Your task to perform on an android device: allow notifications from all sites in the chrome app Image 0: 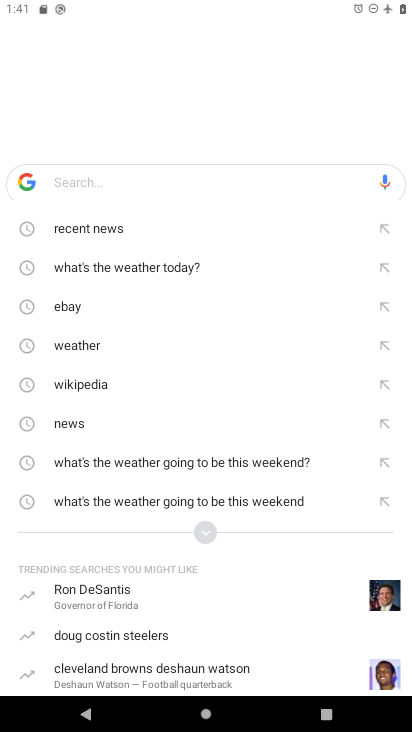
Step 0: press home button
Your task to perform on an android device: allow notifications from all sites in the chrome app Image 1: 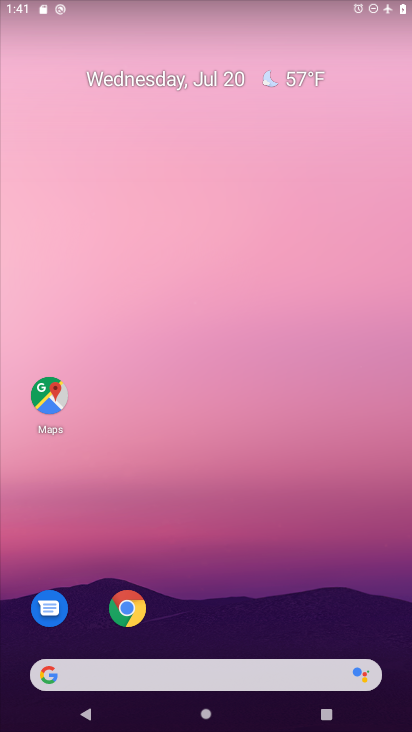
Step 1: drag from (229, 723) to (294, 132)
Your task to perform on an android device: allow notifications from all sites in the chrome app Image 2: 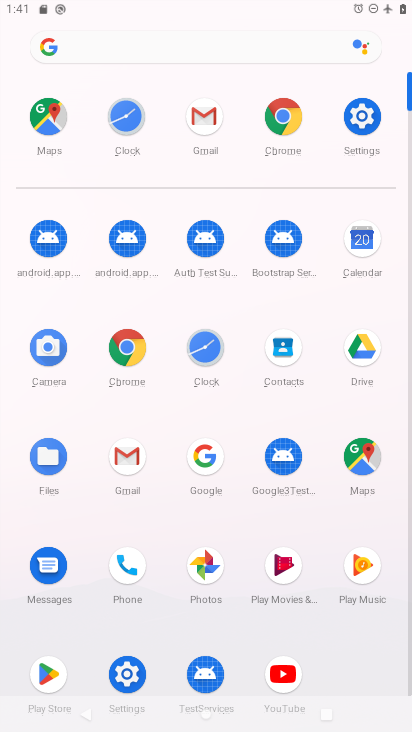
Step 2: click (295, 97)
Your task to perform on an android device: allow notifications from all sites in the chrome app Image 3: 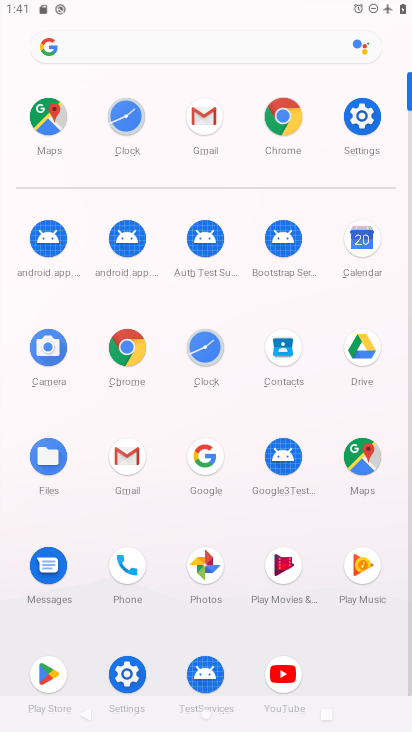
Step 3: click (295, 97)
Your task to perform on an android device: allow notifications from all sites in the chrome app Image 4: 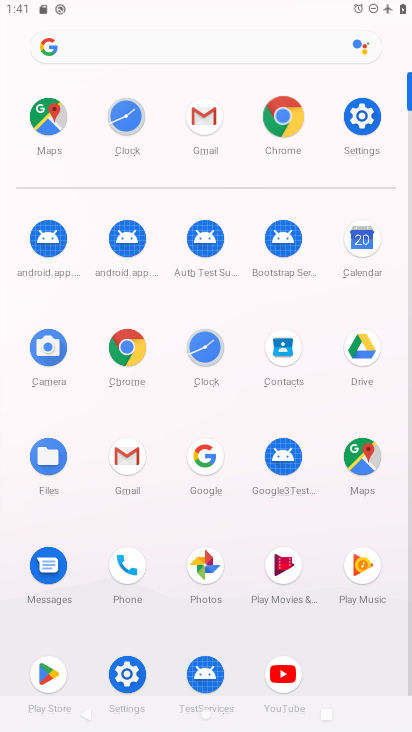
Step 4: click (295, 97)
Your task to perform on an android device: allow notifications from all sites in the chrome app Image 5: 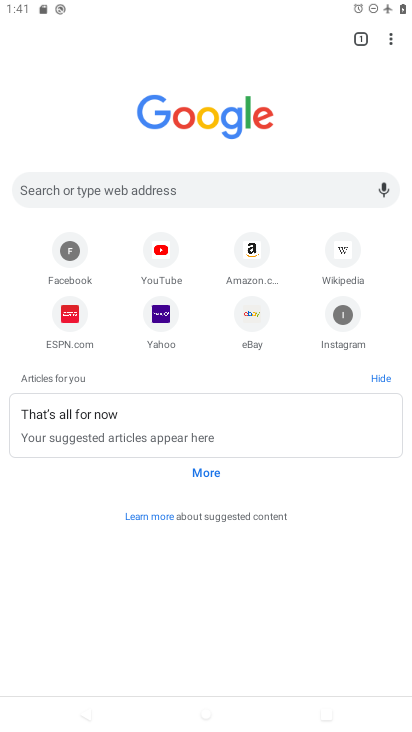
Step 5: click (389, 31)
Your task to perform on an android device: allow notifications from all sites in the chrome app Image 6: 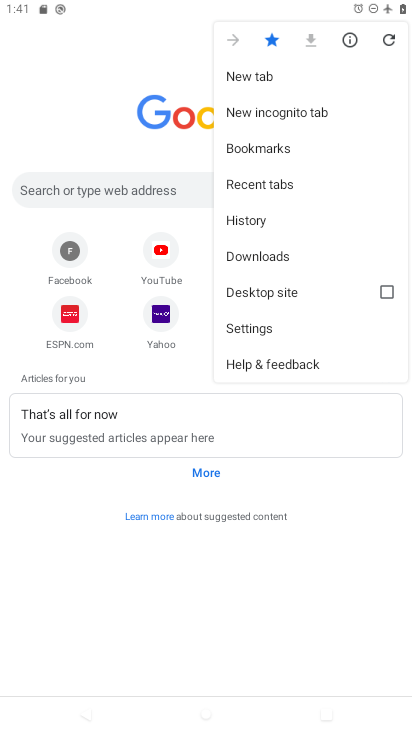
Step 6: click (266, 325)
Your task to perform on an android device: allow notifications from all sites in the chrome app Image 7: 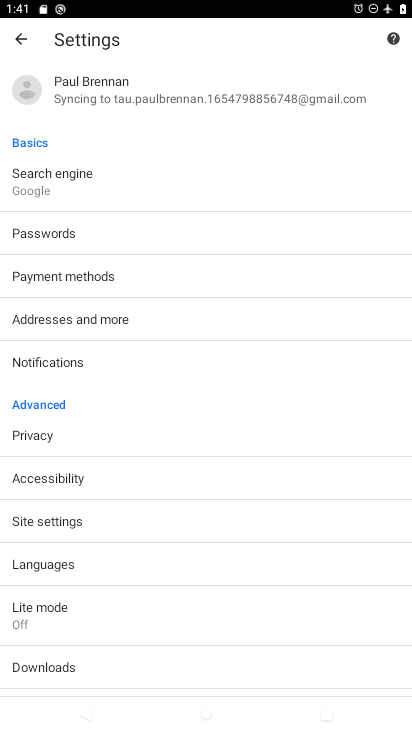
Step 7: click (114, 360)
Your task to perform on an android device: allow notifications from all sites in the chrome app Image 8: 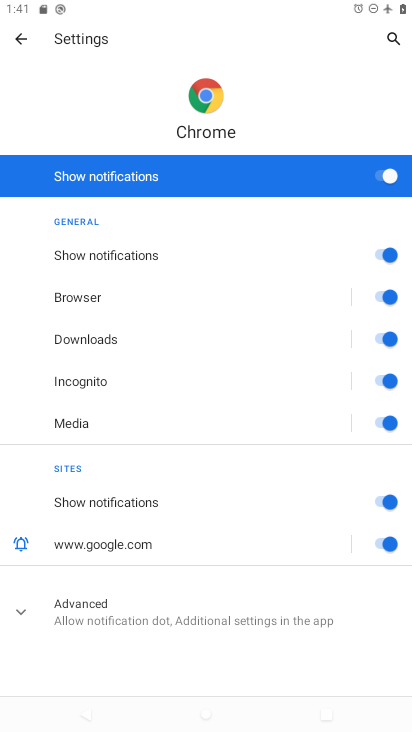
Step 8: task complete